Your task to perform on an android device: see creations saved in the google photos Image 0: 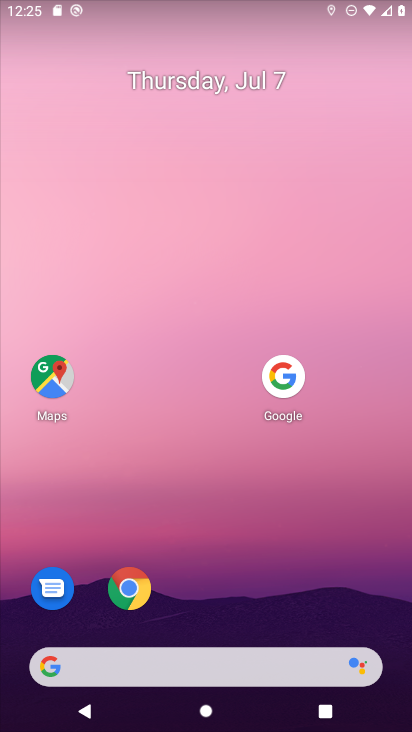
Step 0: drag from (201, 666) to (326, 96)
Your task to perform on an android device: see creations saved in the google photos Image 1: 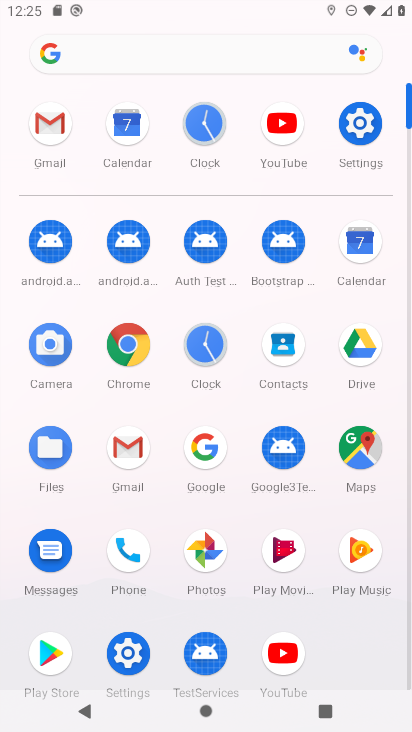
Step 1: click (200, 550)
Your task to perform on an android device: see creations saved in the google photos Image 2: 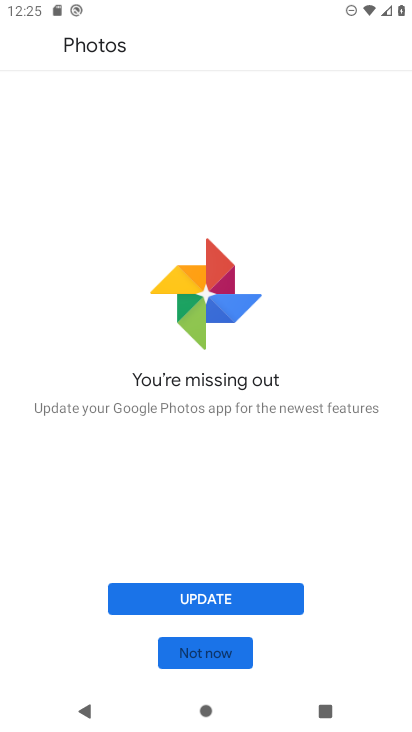
Step 2: click (207, 652)
Your task to perform on an android device: see creations saved in the google photos Image 3: 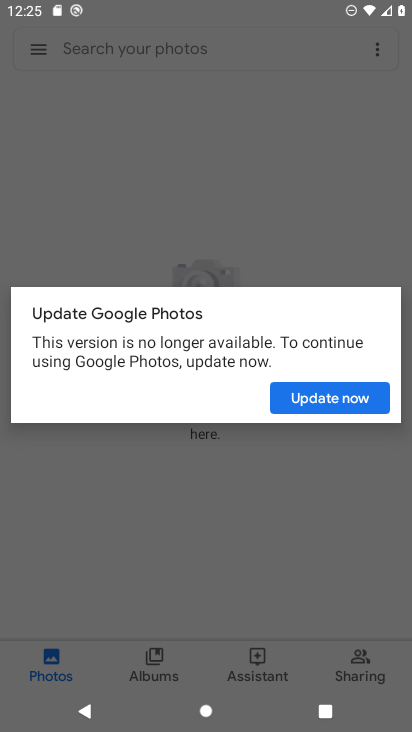
Step 3: click (310, 397)
Your task to perform on an android device: see creations saved in the google photos Image 4: 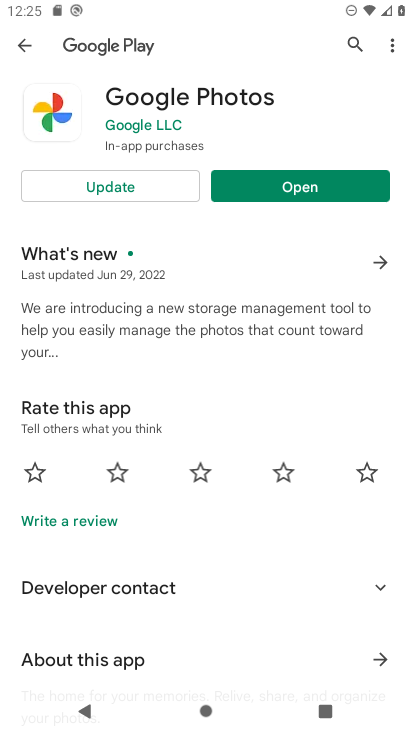
Step 4: click (308, 173)
Your task to perform on an android device: see creations saved in the google photos Image 5: 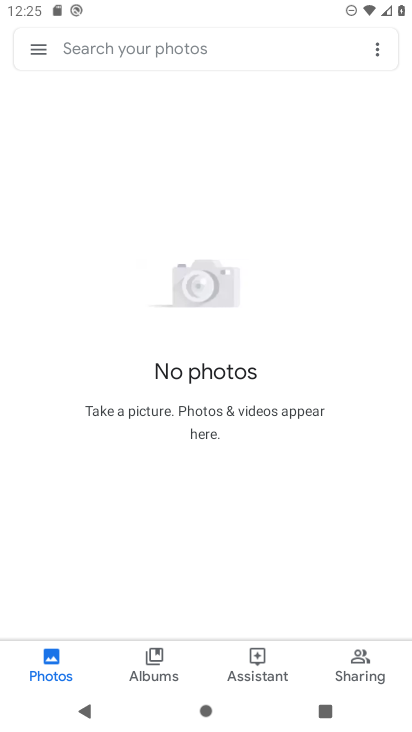
Step 5: click (153, 669)
Your task to perform on an android device: see creations saved in the google photos Image 6: 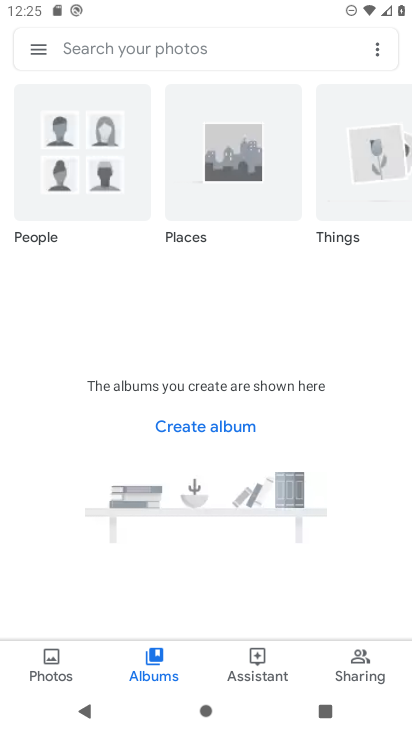
Step 6: click (205, 46)
Your task to perform on an android device: see creations saved in the google photos Image 7: 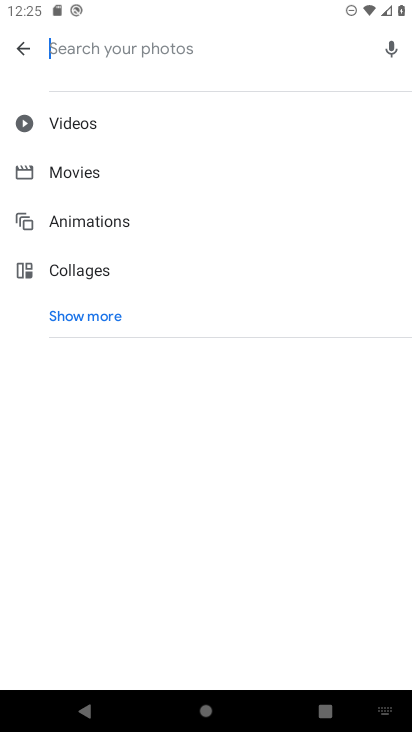
Step 7: click (80, 314)
Your task to perform on an android device: see creations saved in the google photos Image 8: 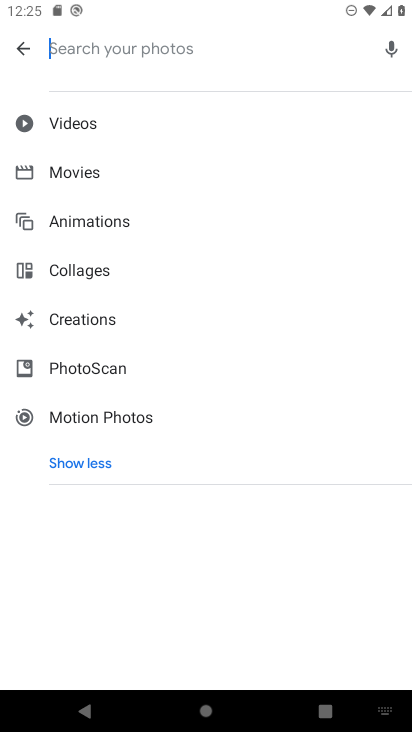
Step 8: click (91, 311)
Your task to perform on an android device: see creations saved in the google photos Image 9: 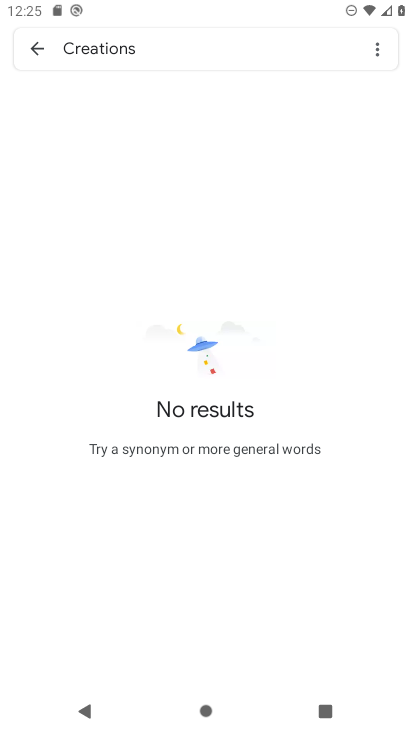
Step 9: task complete